Your task to perform on an android device: Open maps Image 0: 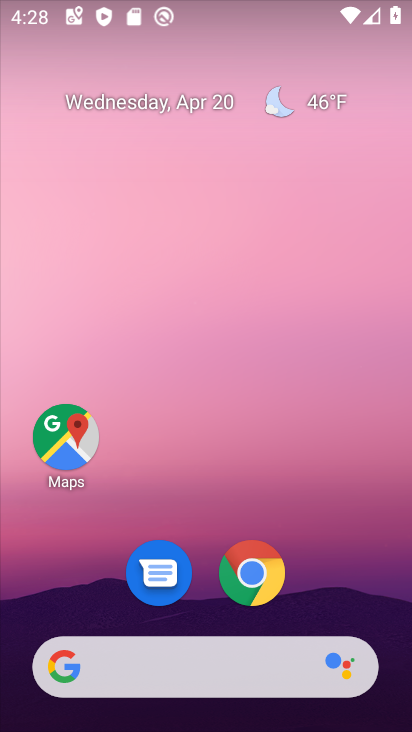
Step 0: click (48, 426)
Your task to perform on an android device: Open maps Image 1: 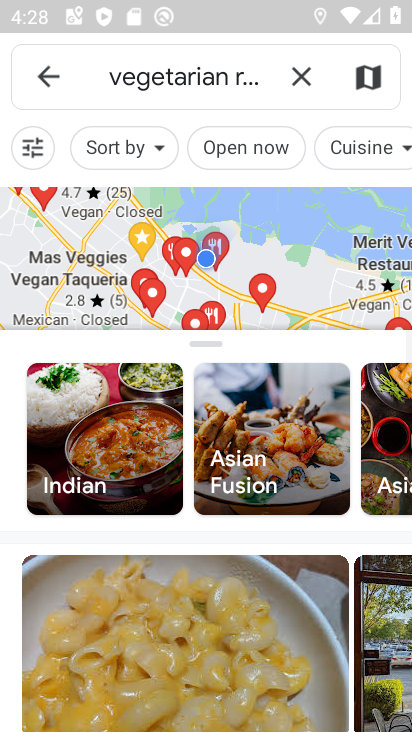
Step 1: task complete